Your task to perform on an android device: What's the weather going to be this weekend? Image 0: 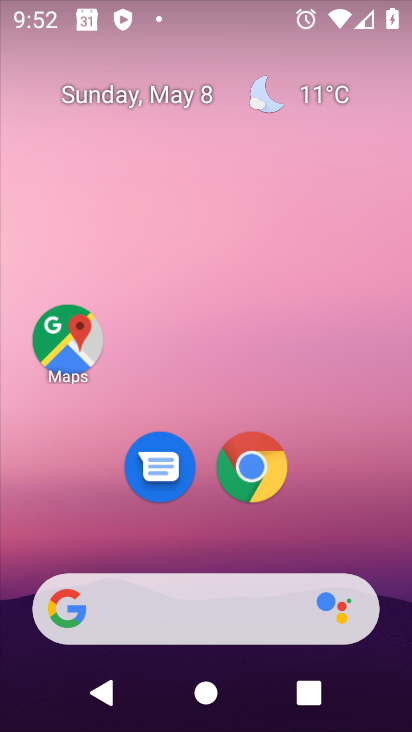
Step 0: click (165, 620)
Your task to perform on an android device: What's the weather going to be this weekend? Image 1: 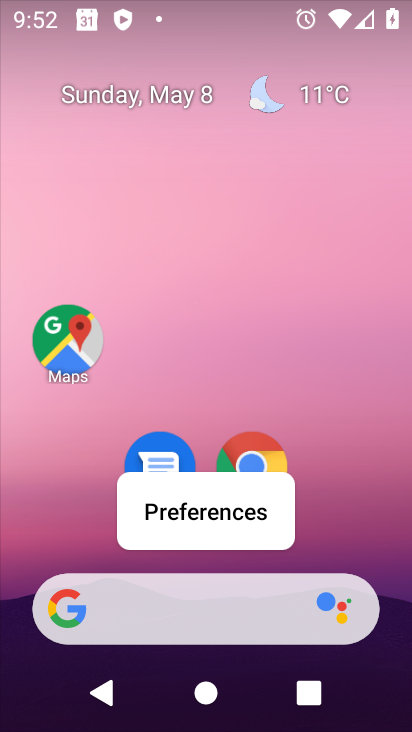
Step 1: click (169, 583)
Your task to perform on an android device: What's the weather going to be this weekend? Image 2: 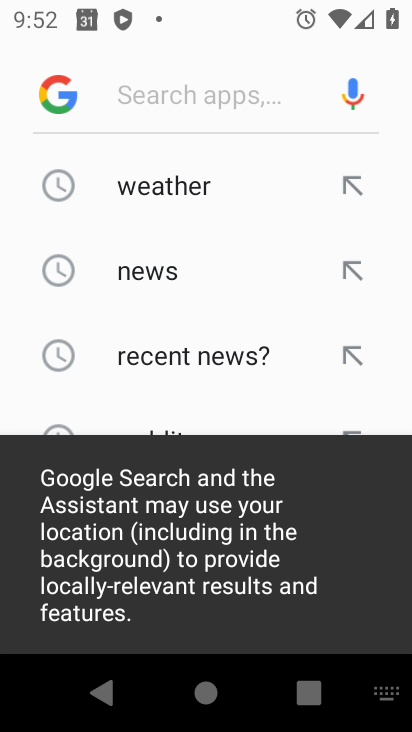
Step 2: click (197, 185)
Your task to perform on an android device: What's the weather going to be this weekend? Image 3: 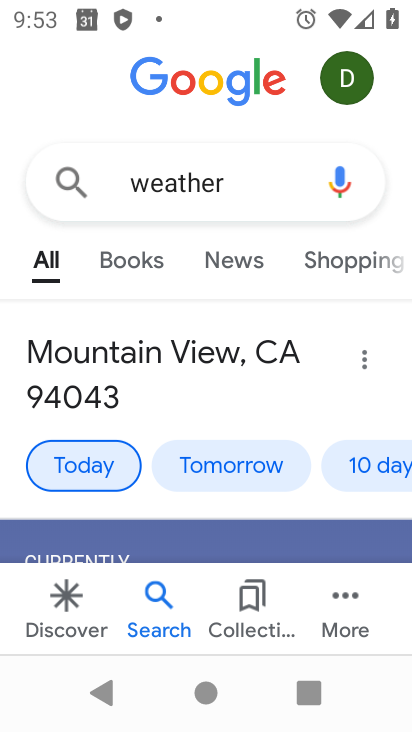
Step 3: task complete